Your task to perform on an android device: turn off wifi Image 0: 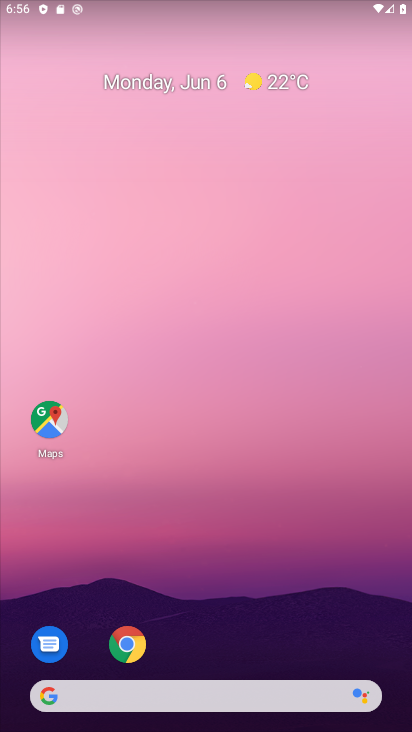
Step 0: drag from (184, 722) to (151, 282)
Your task to perform on an android device: turn off wifi Image 1: 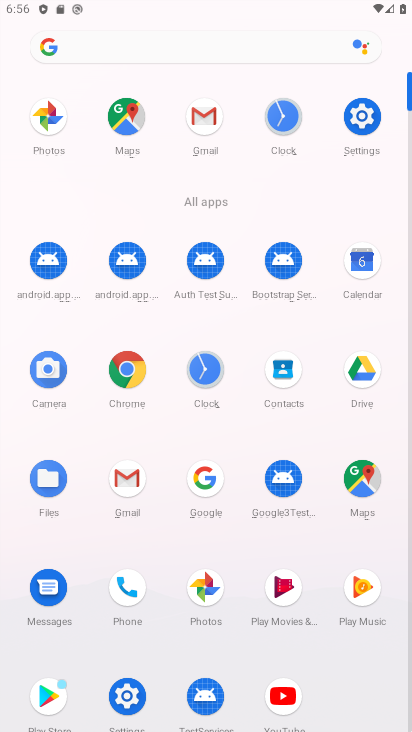
Step 1: click (123, 697)
Your task to perform on an android device: turn off wifi Image 2: 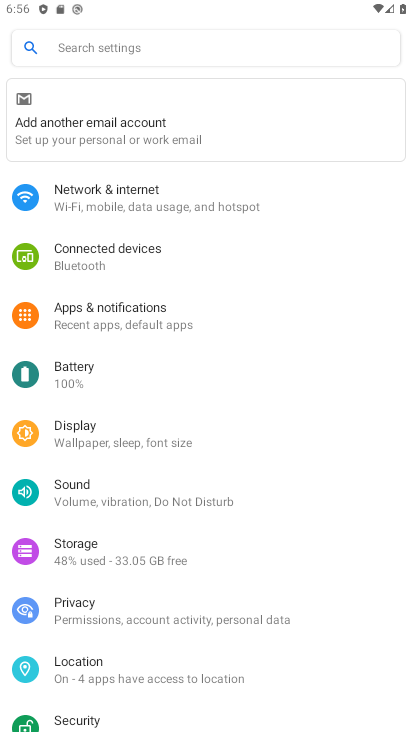
Step 2: click (90, 210)
Your task to perform on an android device: turn off wifi Image 3: 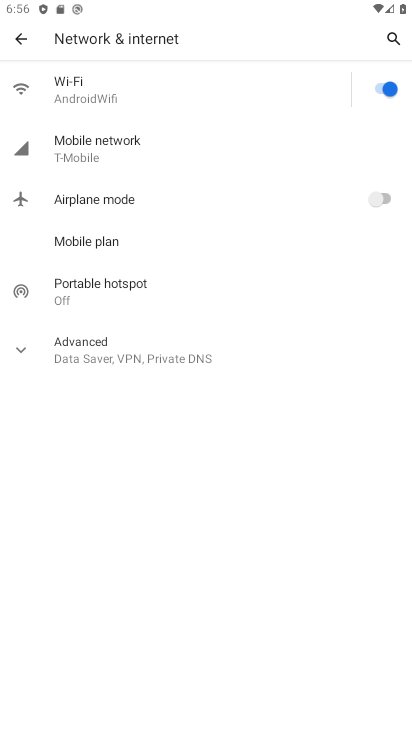
Step 3: click (381, 76)
Your task to perform on an android device: turn off wifi Image 4: 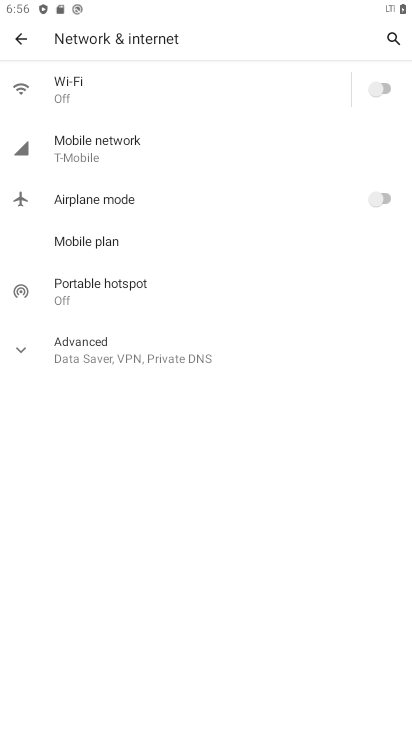
Step 4: task complete